Your task to perform on an android device: change notifications settings Image 0: 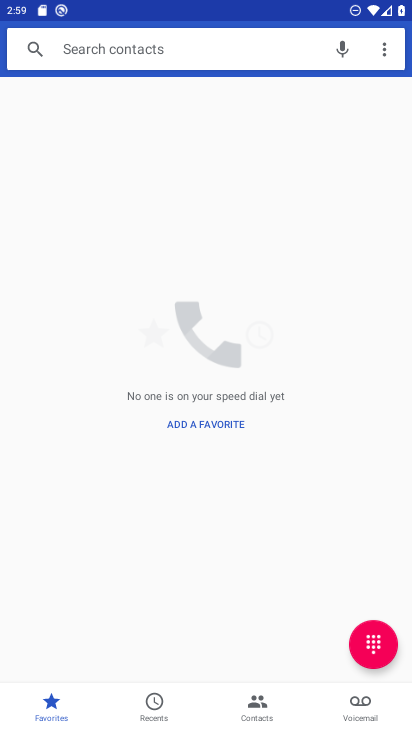
Step 0: press home button
Your task to perform on an android device: change notifications settings Image 1: 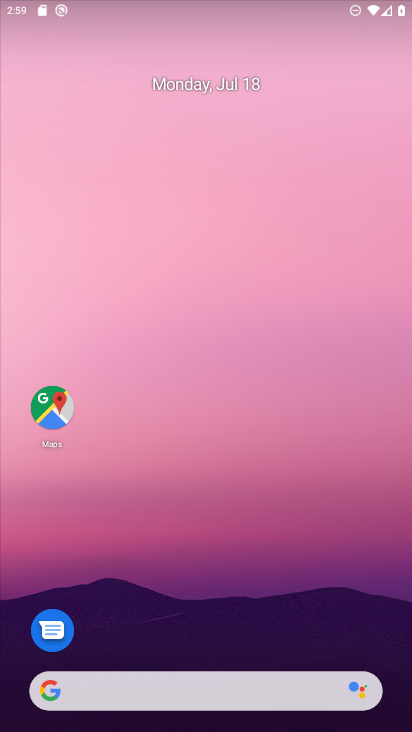
Step 1: drag from (313, 667) to (375, 79)
Your task to perform on an android device: change notifications settings Image 2: 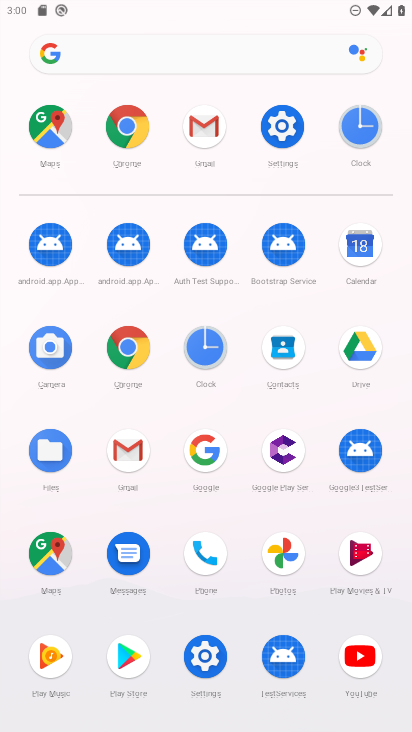
Step 2: click (281, 121)
Your task to perform on an android device: change notifications settings Image 3: 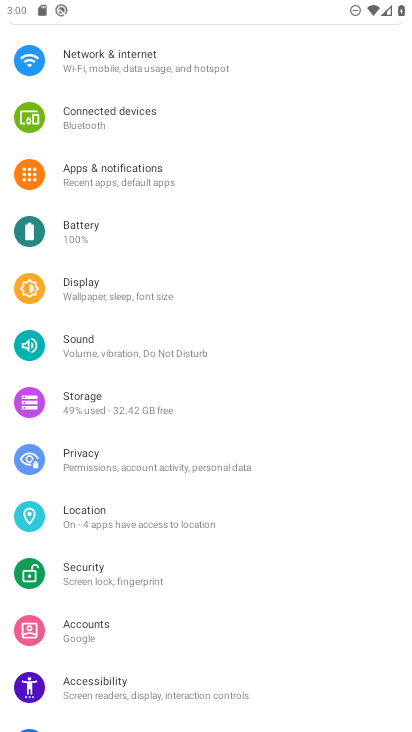
Step 3: click (111, 179)
Your task to perform on an android device: change notifications settings Image 4: 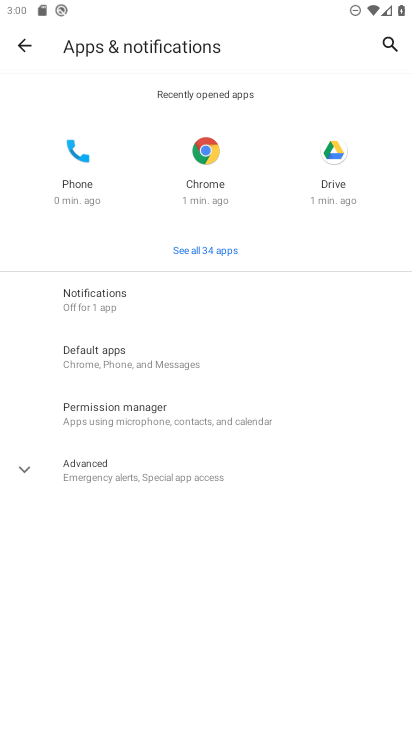
Step 4: click (118, 306)
Your task to perform on an android device: change notifications settings Image 5: 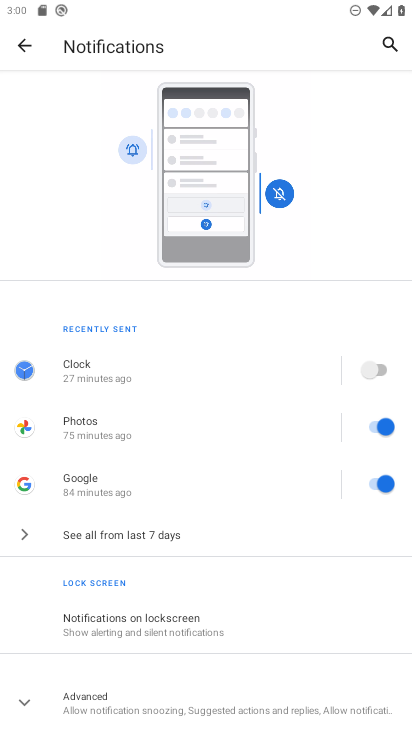
Step 5: click (373, 425)
Your task to perform on an android device: change notifications settings Image 6: 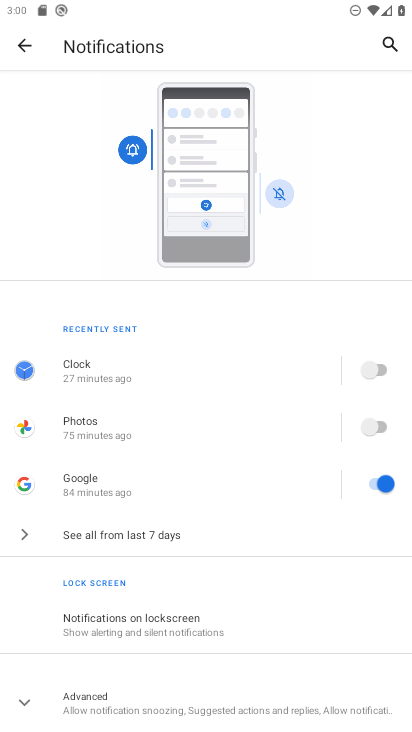
Step 6: task complete